Your task to perform on an android device: Open calendar and show me the first week of next month Image 0: 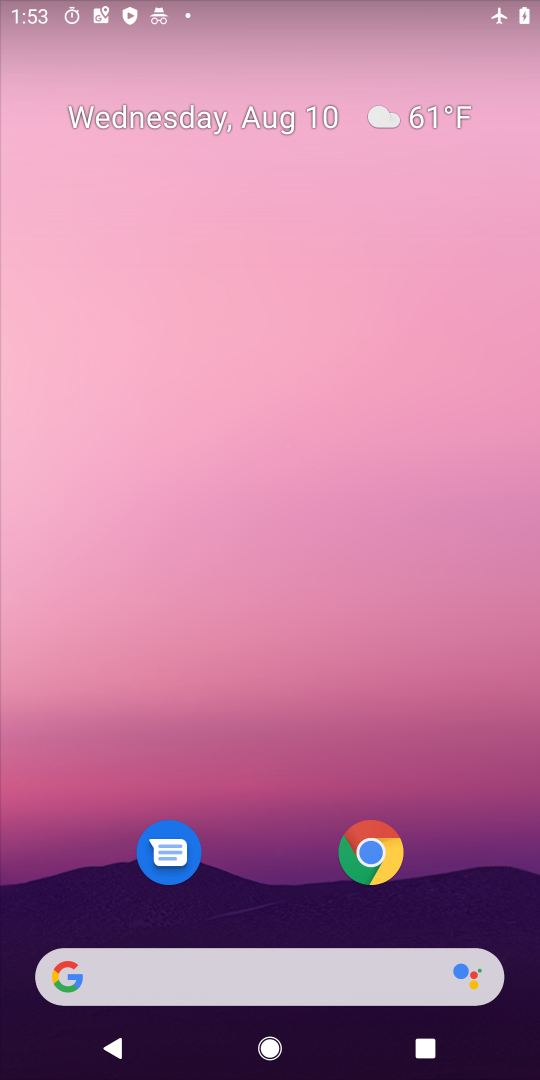
Step 0: drag from (274, 701) to (370, 76)
Your task to perform on an android device: Open calendar and show me the first week of next month Image 1: 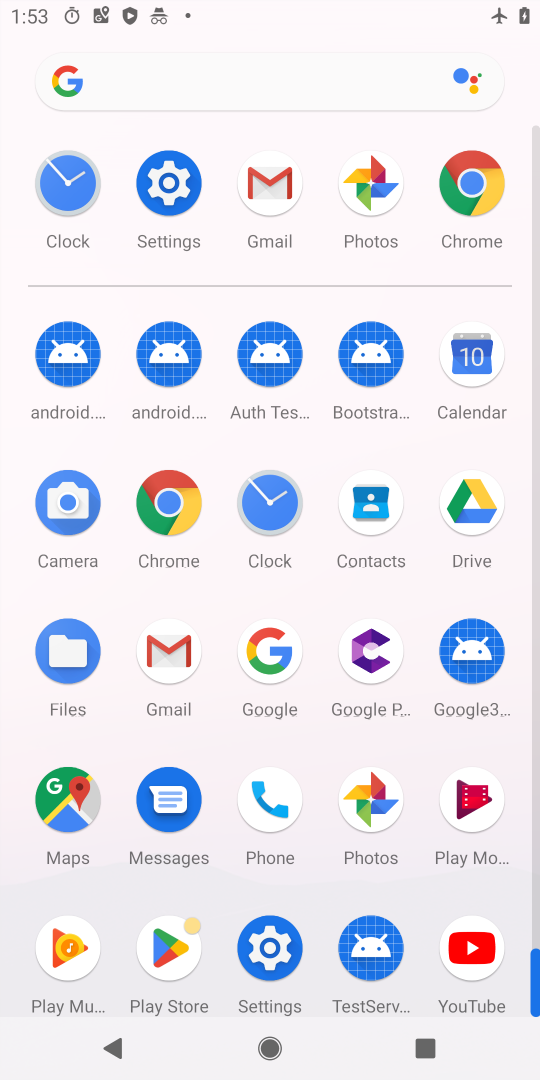
Step 1: click (468, 351)
Your task to perform on an android device: Open calendar and show me the first week of next month Image 2: 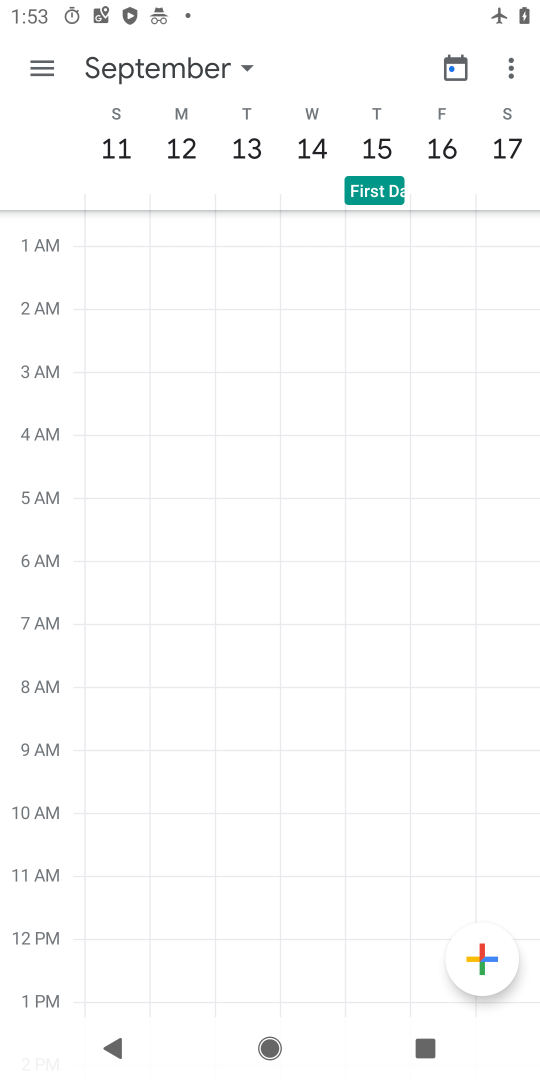
Step 2: click (212, 74)
Your task to perform on an android device: Open calendar and show me the first week of next month Image 3: 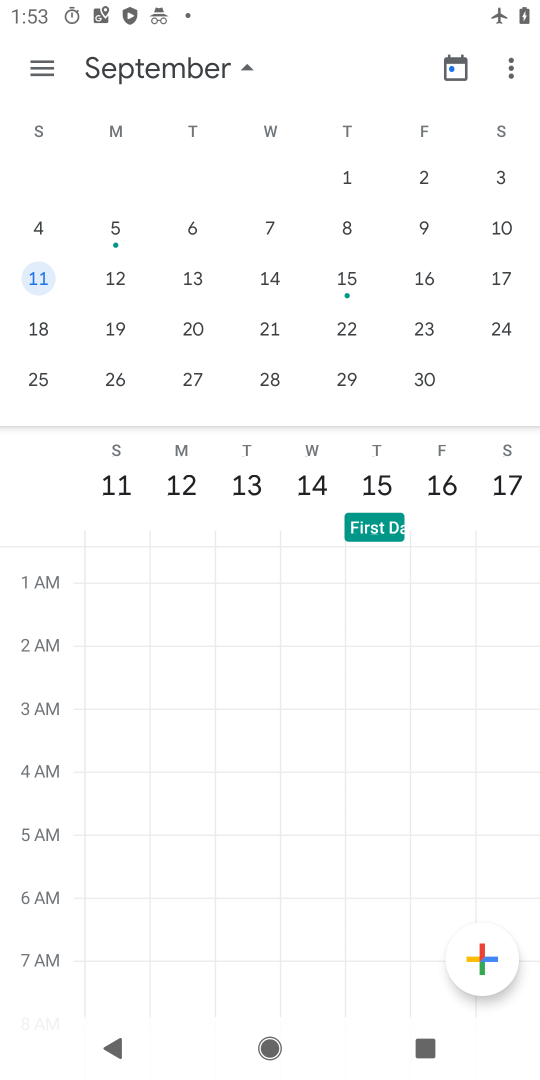
Step 3: click (204, 231)
Your task to perform on an android device: Open calendar and show me the first week of next month Image 4: 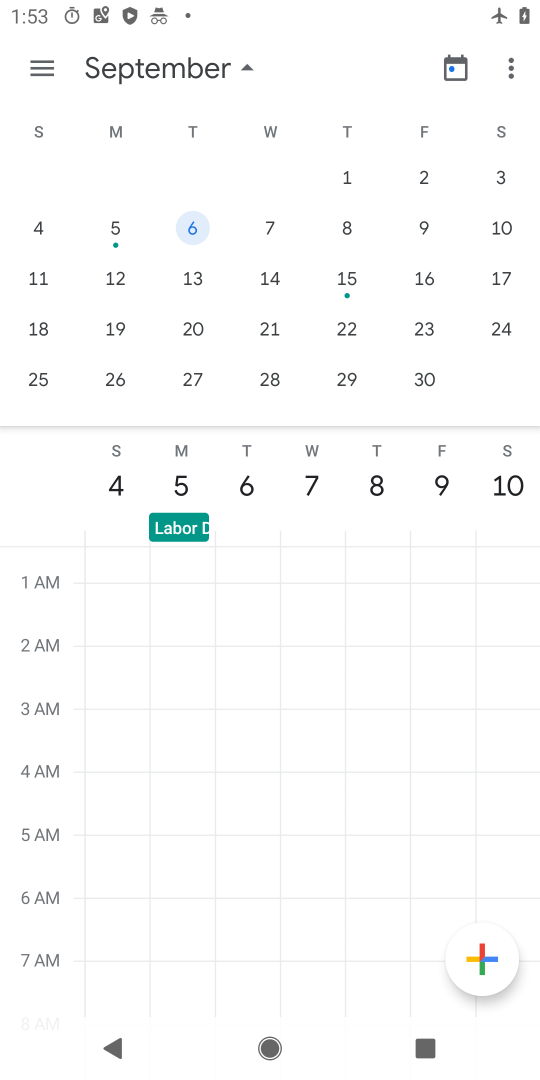
Step 4: task complete